Your task to perform on an android device: delete location history Image 0: 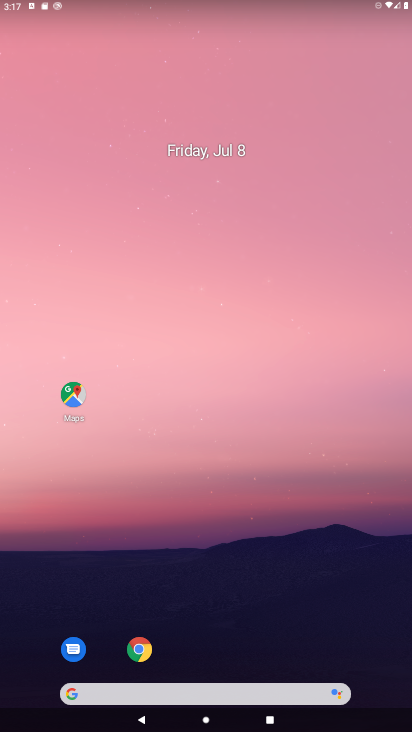
Step 0: click (74, 394)
Your task to perform on an android device: delete location history Image 1: 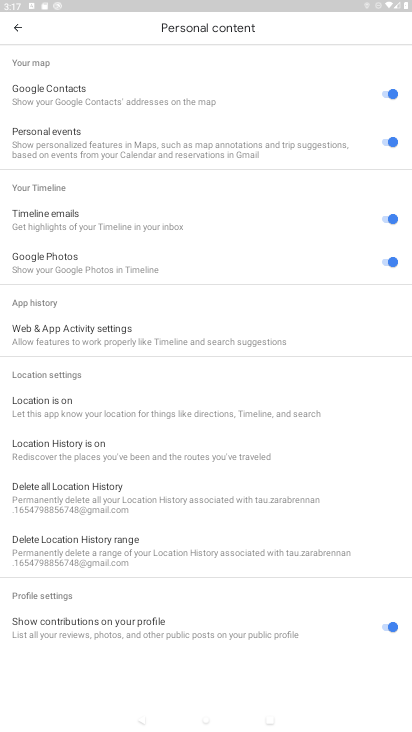
Step 1: press back button
Your task to perform on an android device: delete location history Image 2: 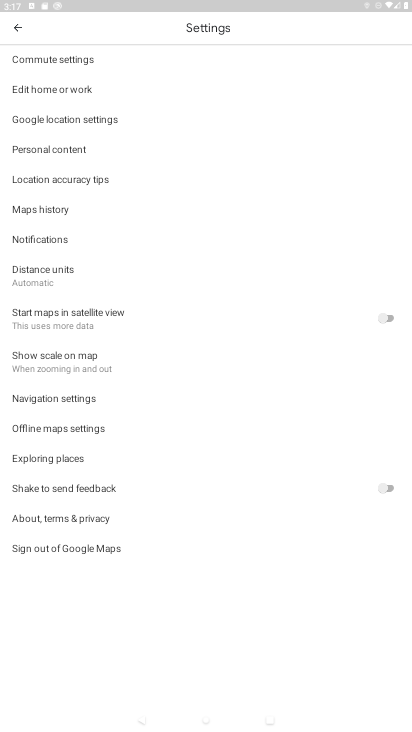
Step 2: press back button
Your task to perform on an android device: delete location history Image 3: 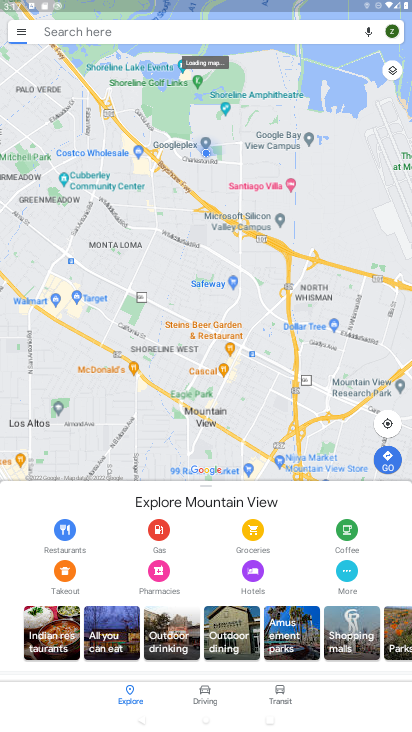
Step 3: click (20, 32)
Your task to perform on an android device: delete location history Image 4: 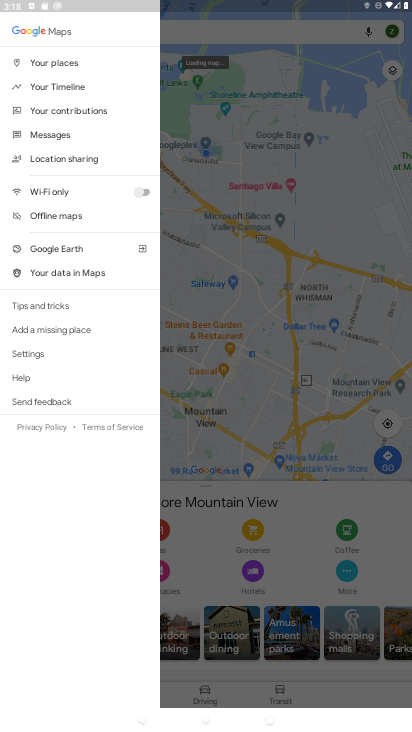
Step 4: click (23, 345)
Your task to perform on an android device: delete location history Image 5: 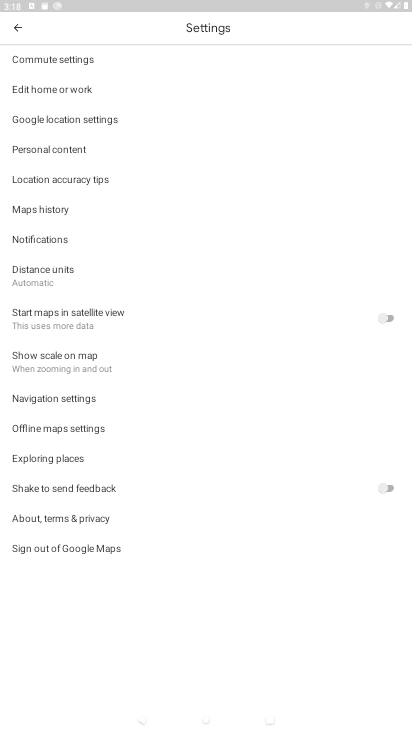
Step 5: click (37, 146)
Your task to perform on an android device: delete location history Image 6: 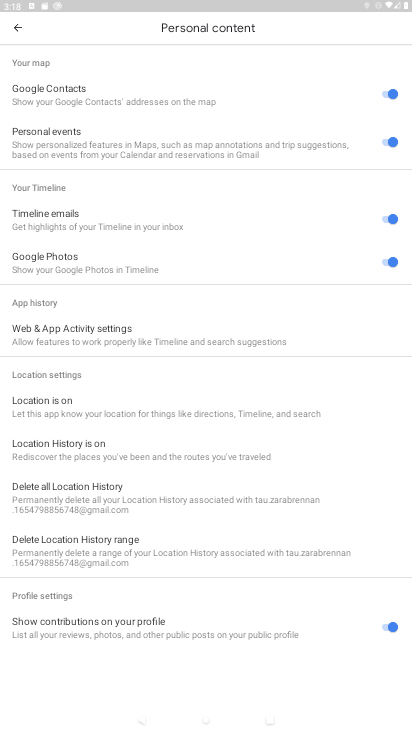
Step 6: click (53, 495)
Your task to perform on an android device: delete location history Image 7: 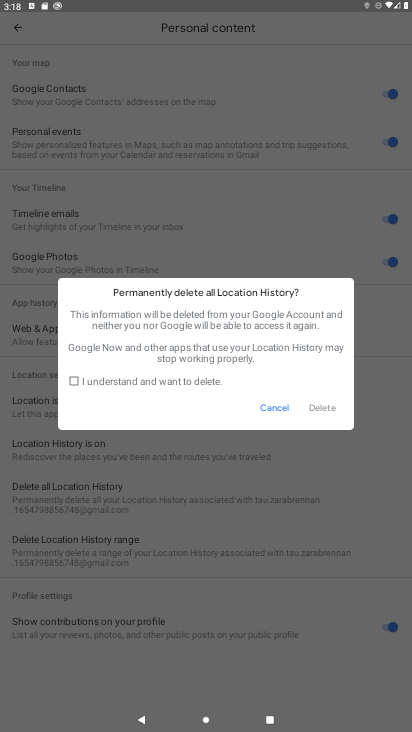
Step 7: click (71, 377)
Your task to perform on an android device: delete location history Image 8: 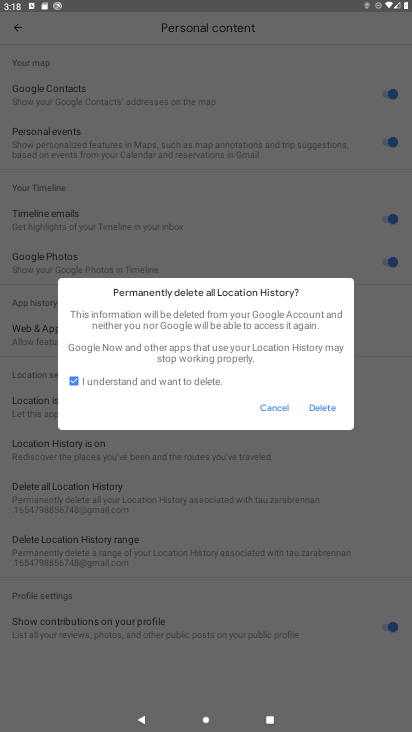
Step 8: click (320, 406)
Your task to perform on an android device: delete location history Image 9: 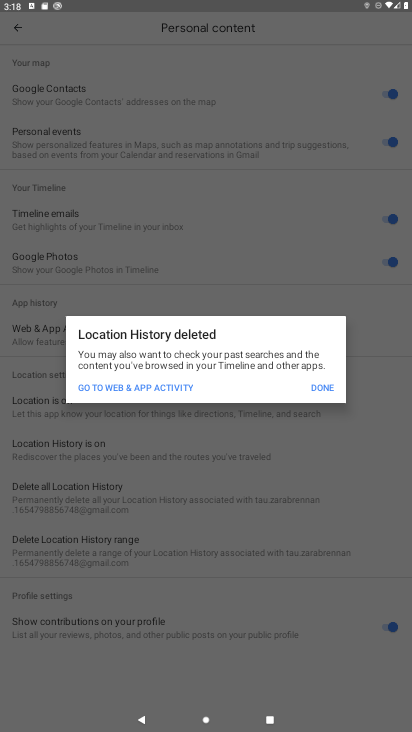
Step 9: click (322, 386)
Your task to perform on an android device: delete location history Image 10: 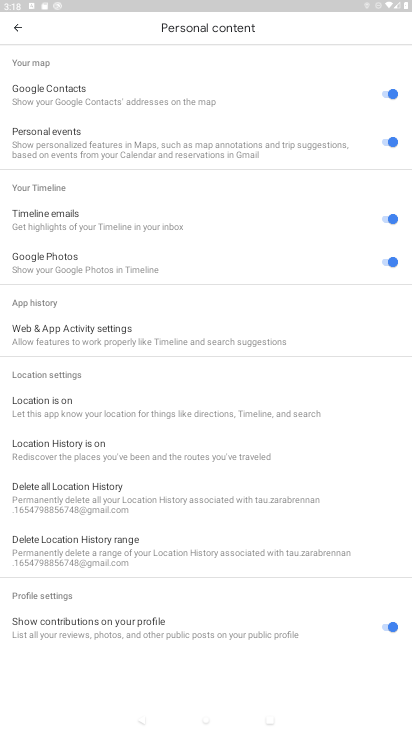
Step 10: task complete